Your task to perform on an android device: turn on bluetooth scan Image 0: 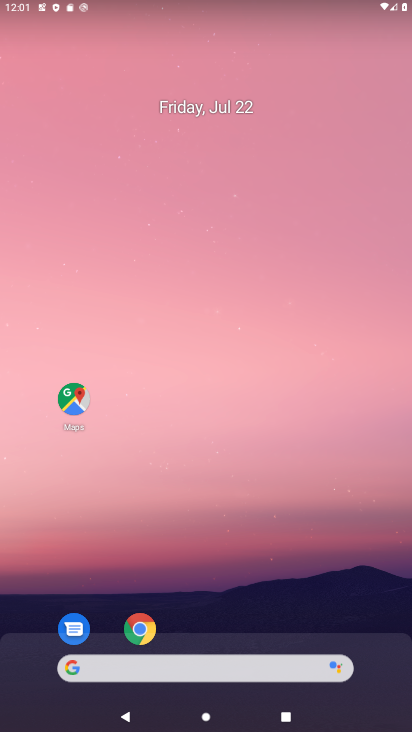
Step 0: drag from (243, 555) to (242, 251)
Your task to perform on an android device: turn on bluetooth scan Image 1: 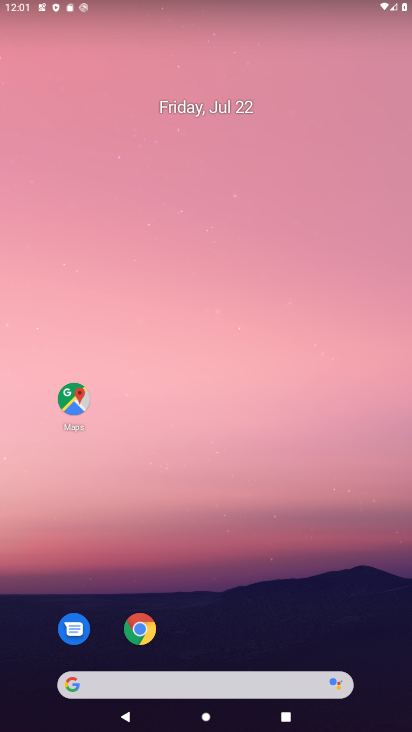
Step 1: drag from (357, 668) to (353, 141)
Your task to perform on an android device: turn on bluetooth scan Image 2: 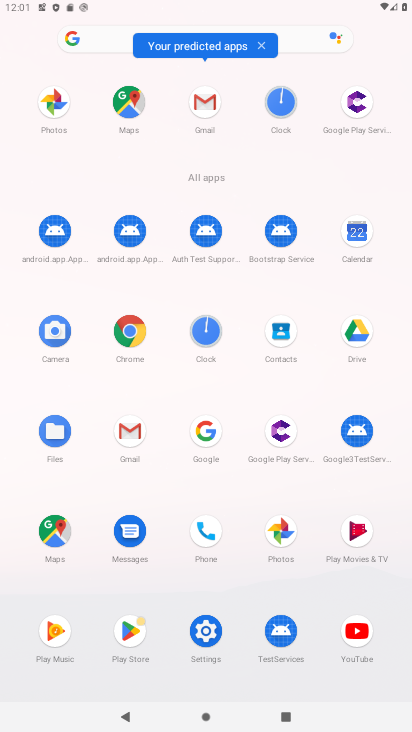
Step 2: click (210, 622)
Your task to perform on an android device: turn on bluetooth scan Image 3: 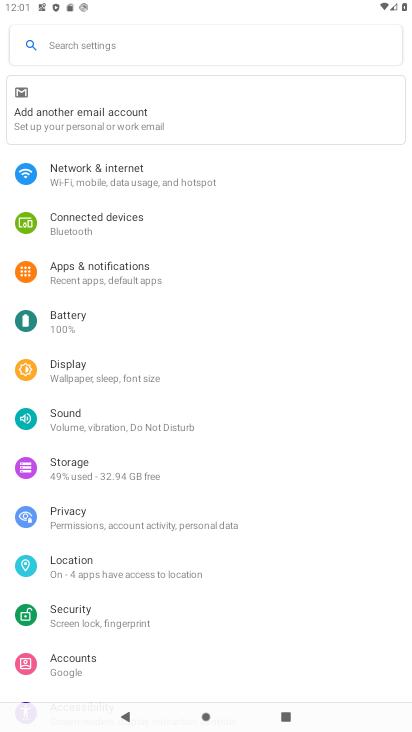
Step 3: click (100, 568)
Your task to perform on an android device: turn on bluetooth scan Image 4: 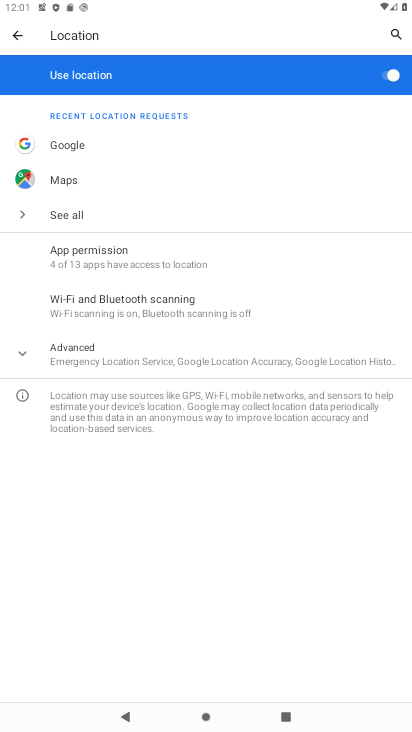
Step 4: click (132, 304)
Your task to perform on an android device: turn on bluetooth scan Image 5: 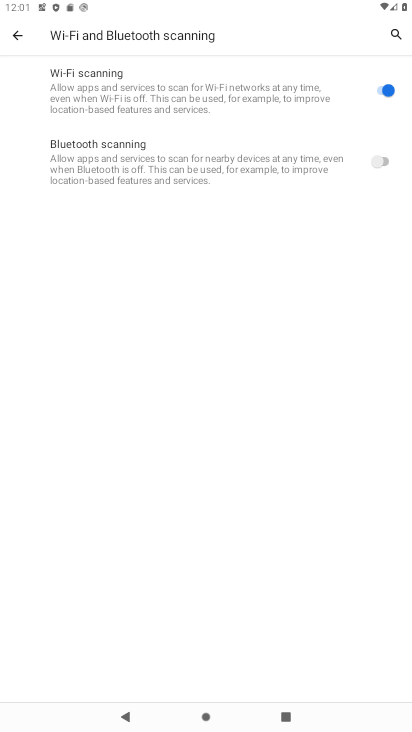
Step 5: click (394, 180)
Your task to perform on an android device: turn on bluetooth scan Image 6: 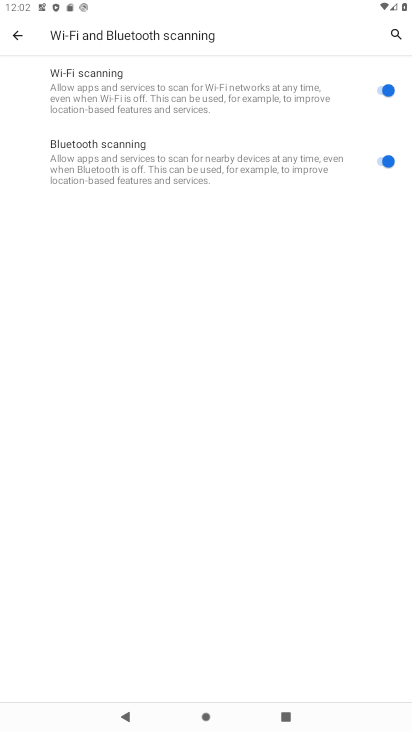
Step 6: task complete